Your task to perform on an android device: empty trash in google photos Image 0: 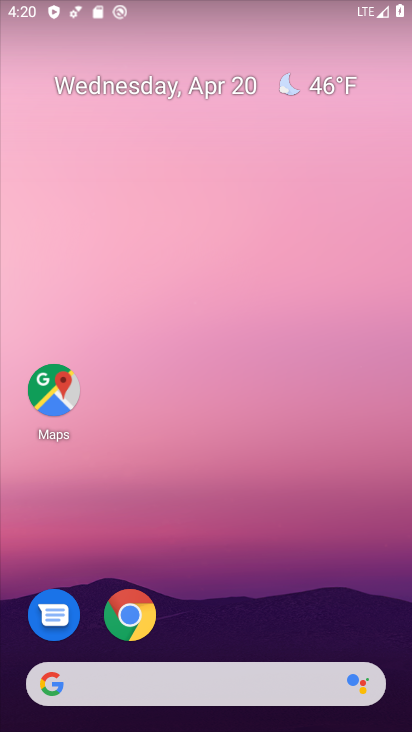
Step 0: drag from (181, 602) to (280, 107)
Your task to perform on an android device: empty trash in google photos Image 1: 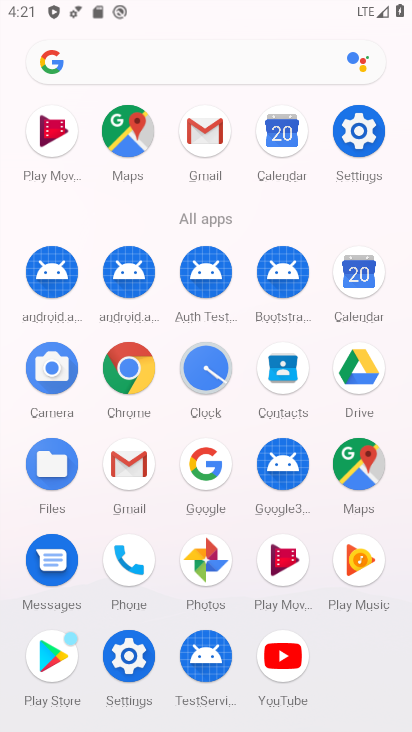
Step 1: click (211, 555)
Your task to perform on an android device: empty trash in google photos Image 2: 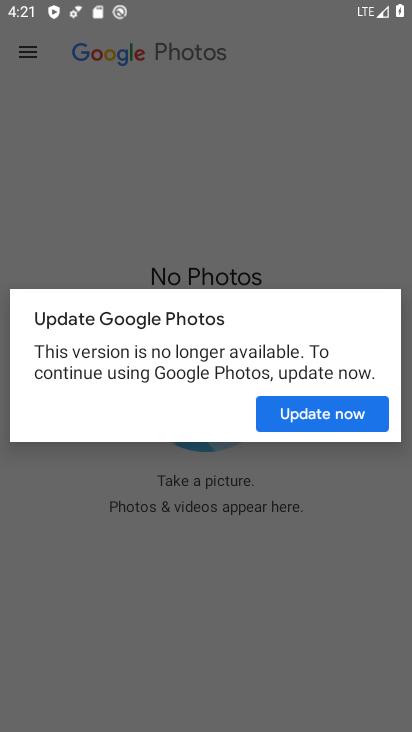
Step 2: click (302, 386)
Your task to perform on an android device: empty trash in google photos Image 3: 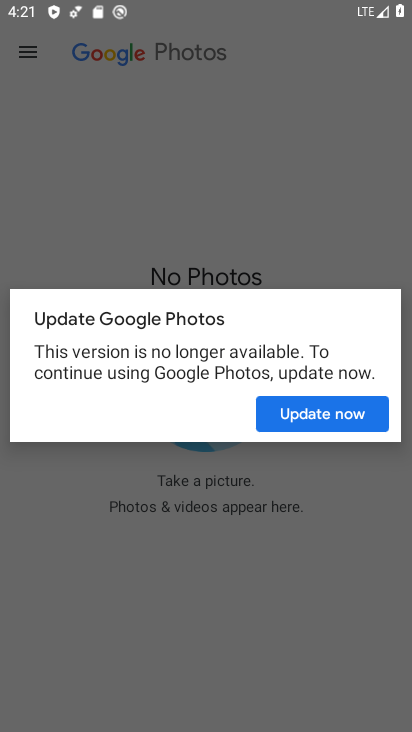
Step 3: click (302, 405)
Your task to perform on an android device: empty trash in google photos Image 4: 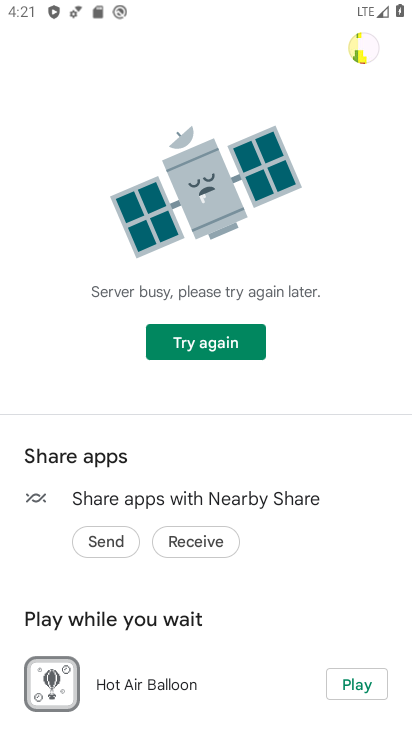
Step 4: click (211, 343)
Your task to perform on an android device: empty trash in google photos Image 5: 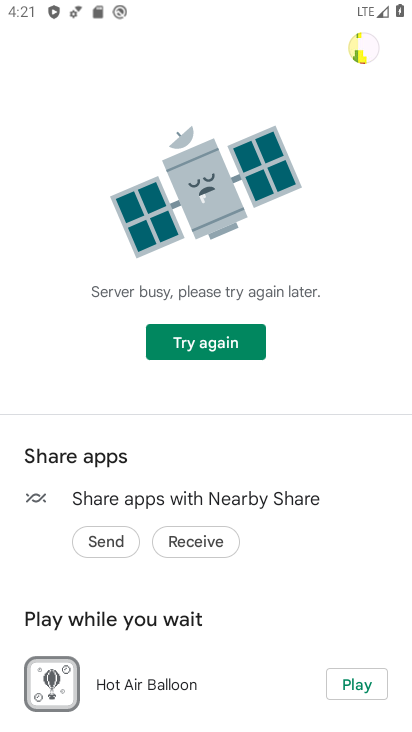
Step 5: press back button
Your task to perform on an android device: empty trash in google photos Image 6: 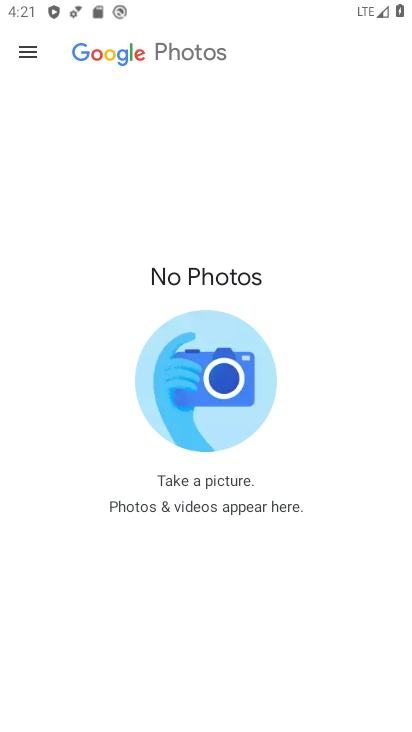
Step 6: click (27, 50)
Your task to perform on an android device: empty trash in google photos Image 7: 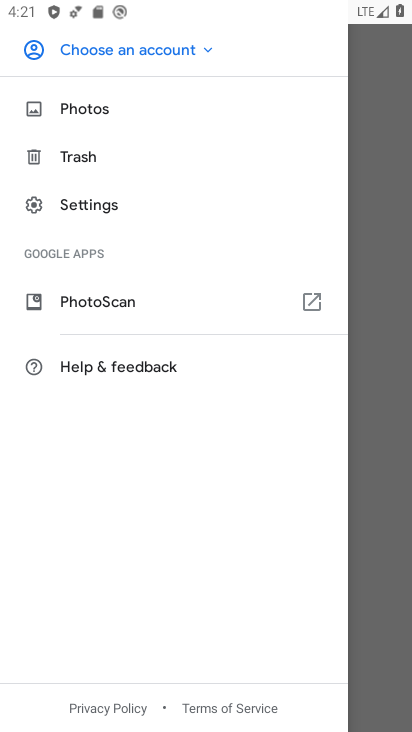
Step 7: click (85, 163)
Your task to perform on an android device: empty trash in google photos Image 8: 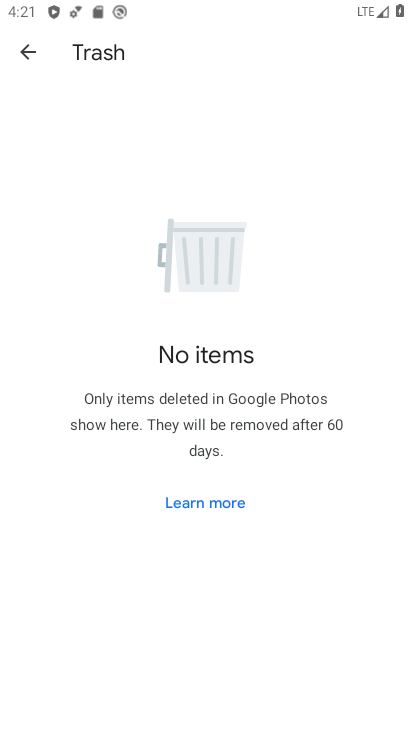
Step 8: task complete